Your task to perform on an android device: open a bookmark in the chrome app Image 0: 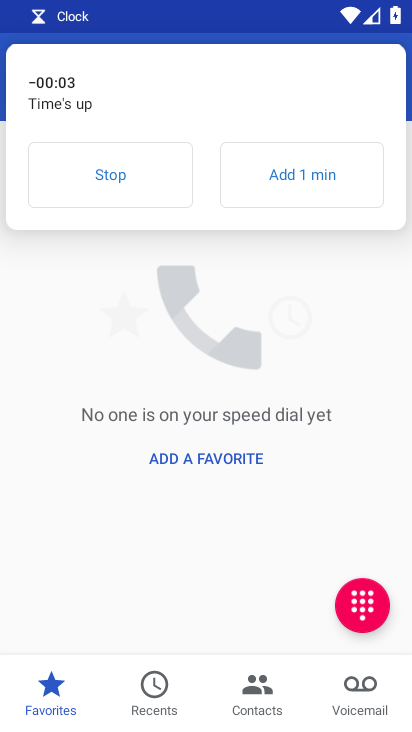
Step 0: press home button
Your task to perform on an android device: open a bookmark in the chrome app Image 1: 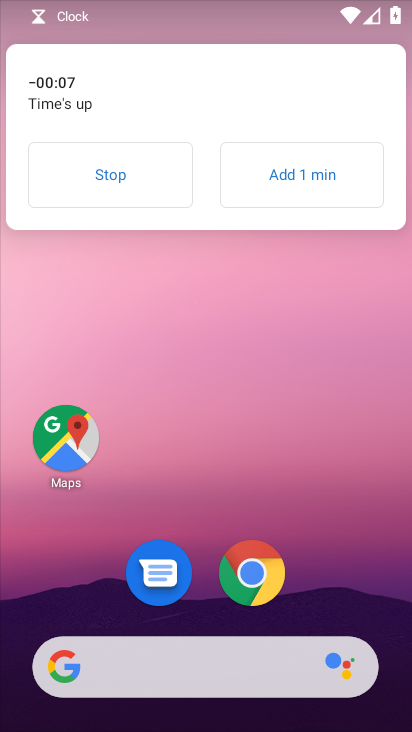
Step 1: click (102, 174)
Your task to perform on an android device: open a bookmark in the chrome app Image 2: 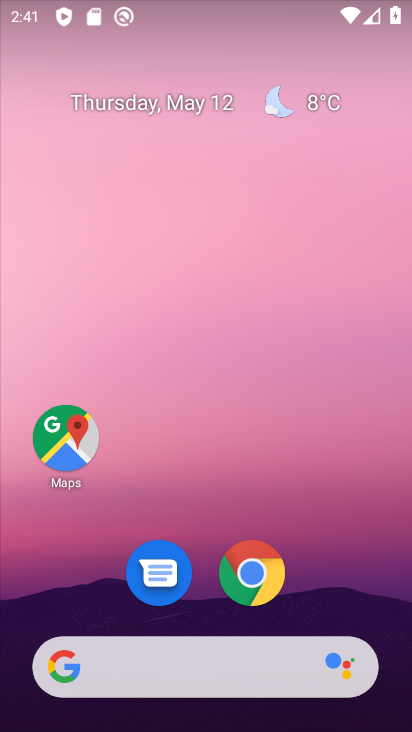
Step 2: click (259, 565)
Your task to perform on an android device: open a bookmark in the chrome app Image 3: 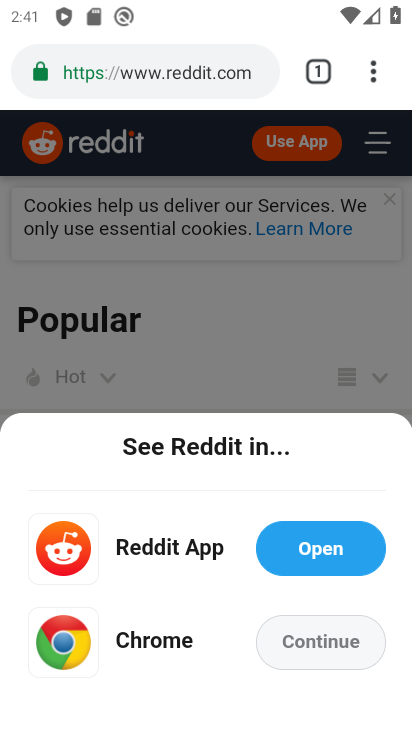
Step 3: task complete